Your task to perform on an android device: Open eBay Image 0: 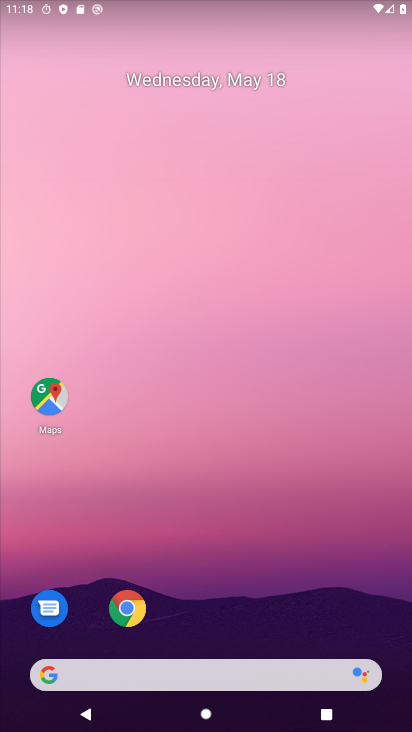
Step 0: click (126, 612)
Your task to perform on an android device: Open eBay Image 1: 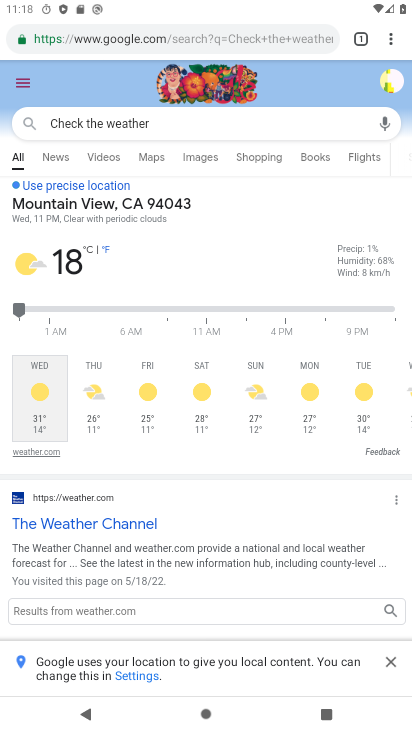
Step 1: click (356, 41)
Your task to perform on an android device: Open eBay Image 2: 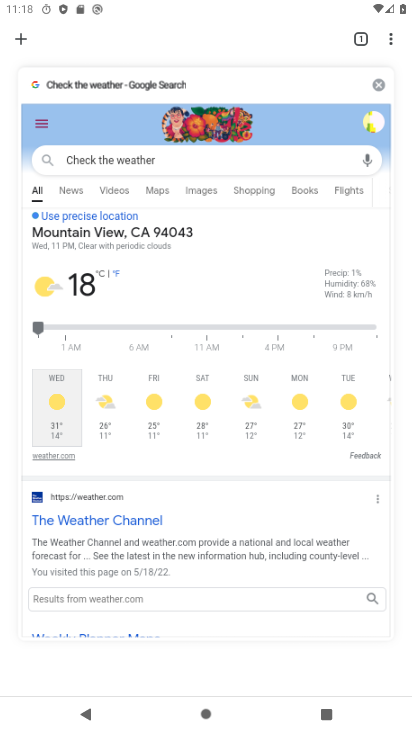
Step 2: click (24, 42)
Your task to perform on an android device: Open eBay Image 3: 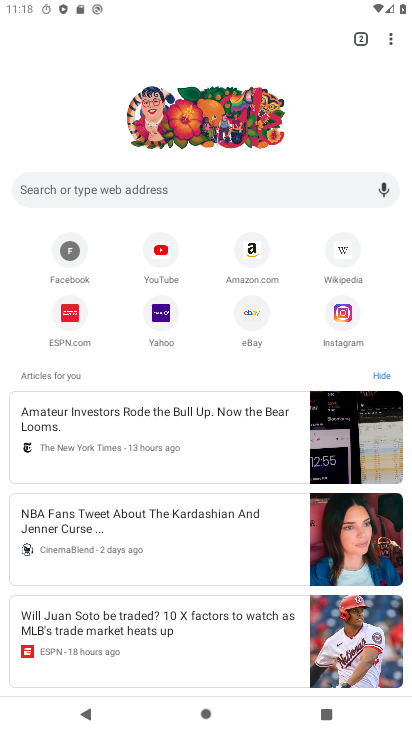
Step 3: click (252, 306)
Your task to perform on an android device: Open eBay Image 4: 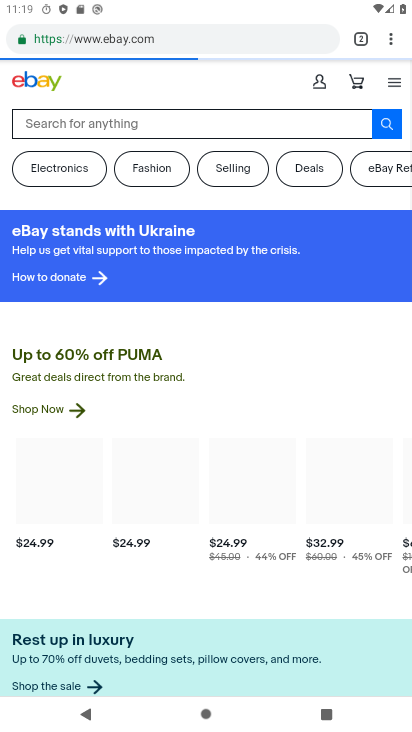
Step 4: task complete